Your task to perform on an android device: Open Google Chrome Image 0: 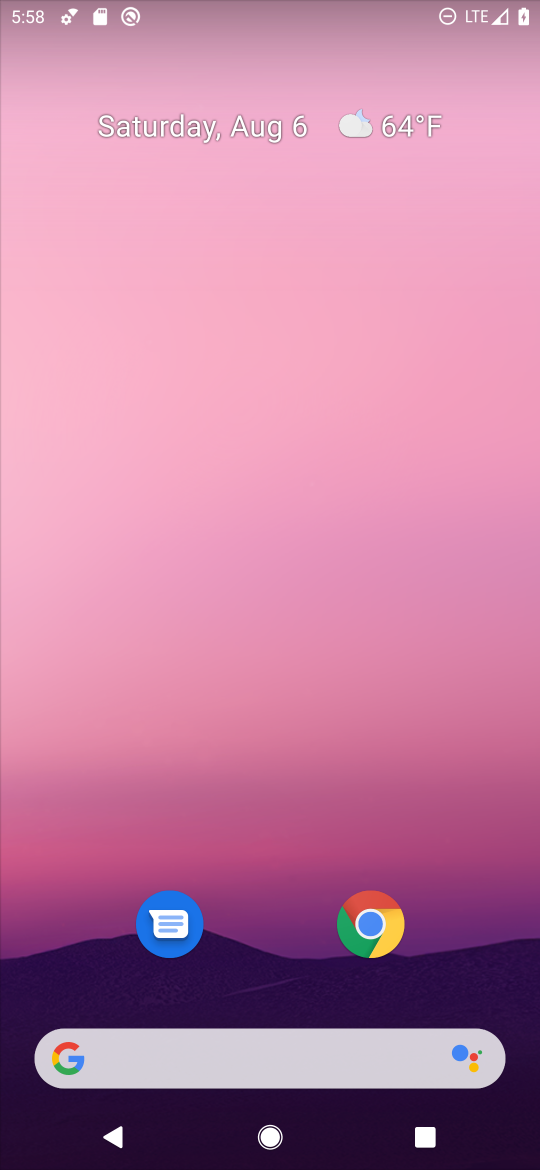
Step 0: click (369, 929)
Your task to perform on an android device: Open Google Chrome Image 1: 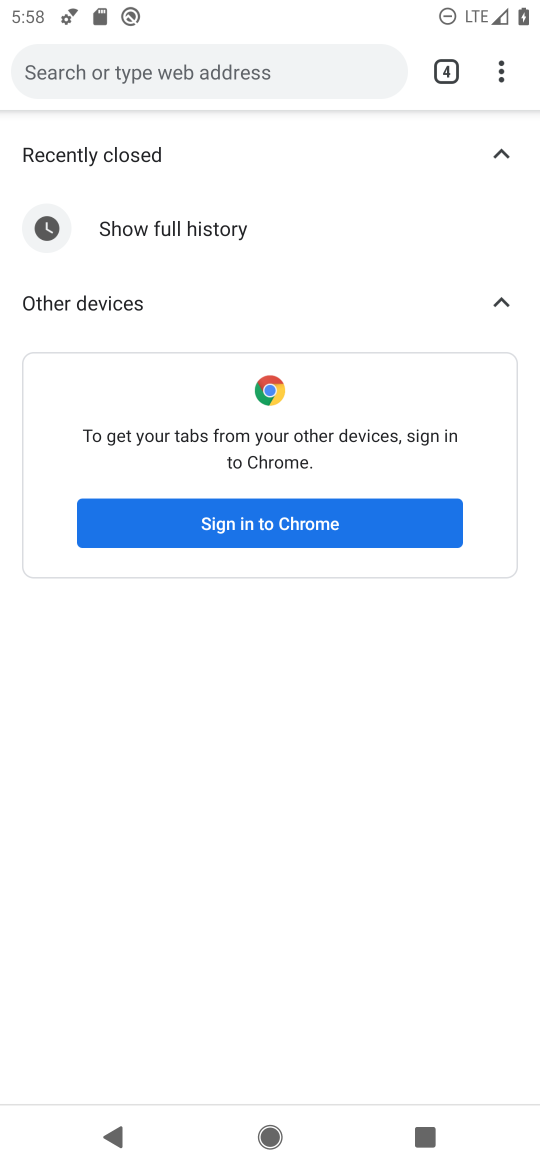
Step 1: click (503, 82)
Your task to perform on an android device: Open Google Chrome Image 2: 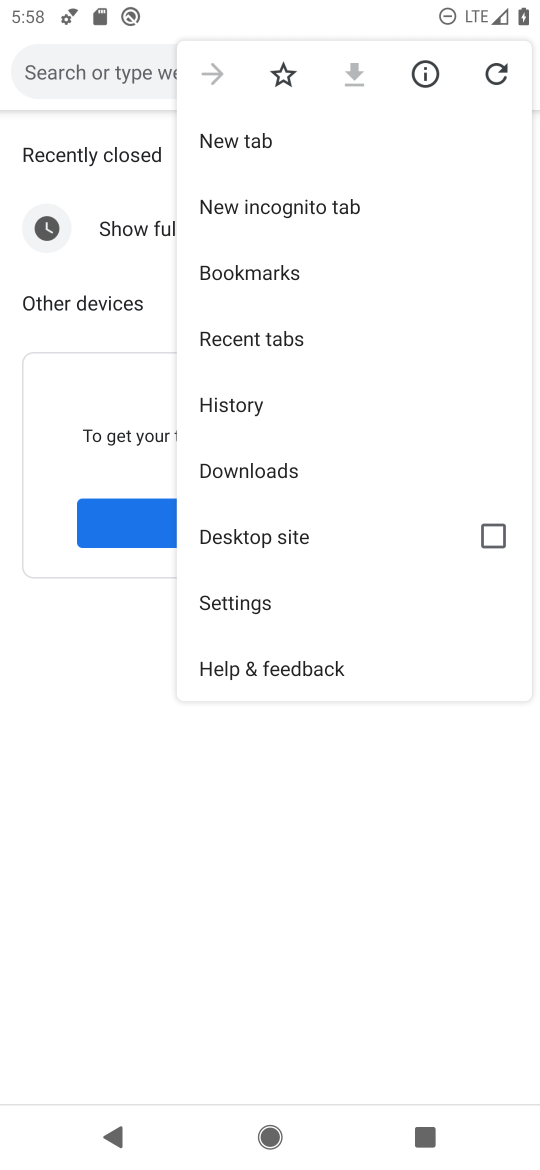
Step 2: click (260, 130)
Your task to perform on an android device: Open Google Chrome Image 3: 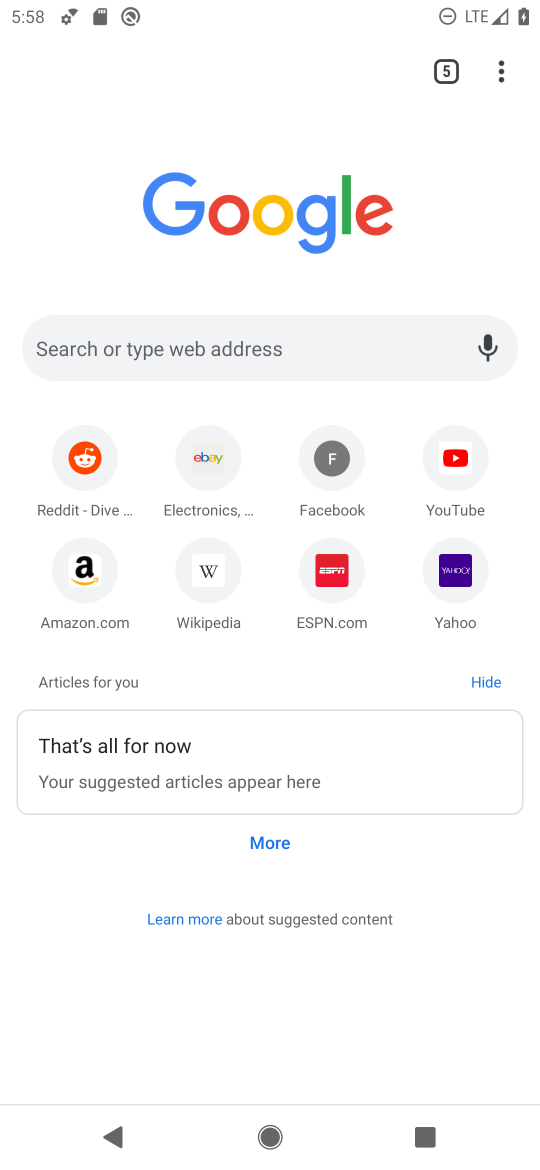
Step 3: task complete